Your task to perform on an android device: Open Yahoo.com Image 0: 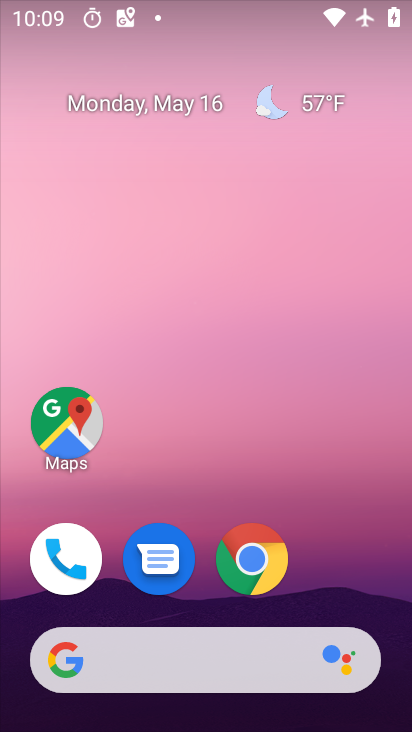
Step 0: click (242, 554)
Your task to perform on an android device: Open Yahoo.com Image 1: 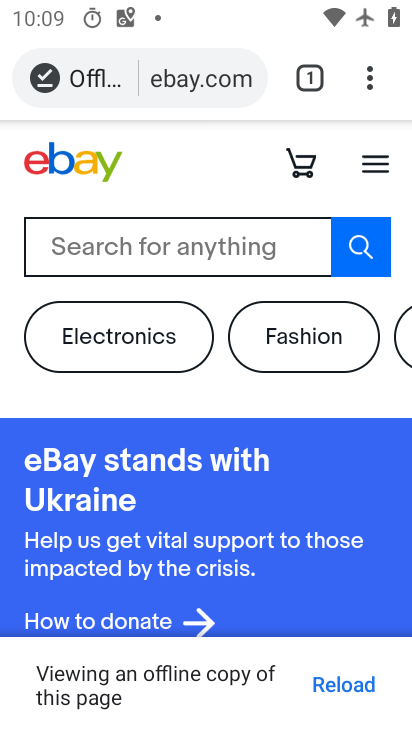
Step 1: click (193, 74)
Your task to perform on an android device: Open Yahoo.com Image 2: 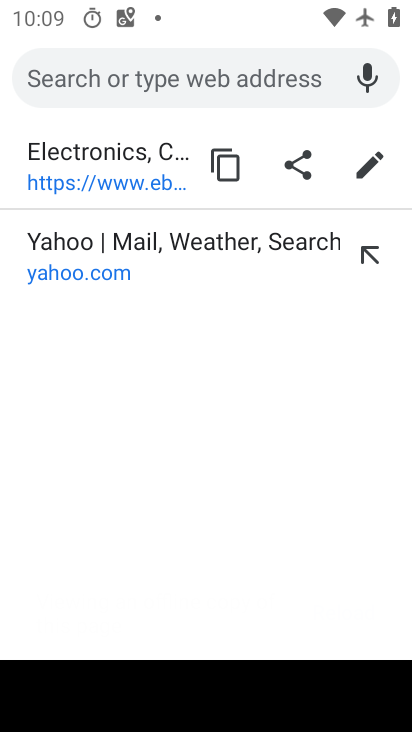
Step 2: click (121, 269)
Your task to perform on an android device: Open Yahoo.com Image 3: 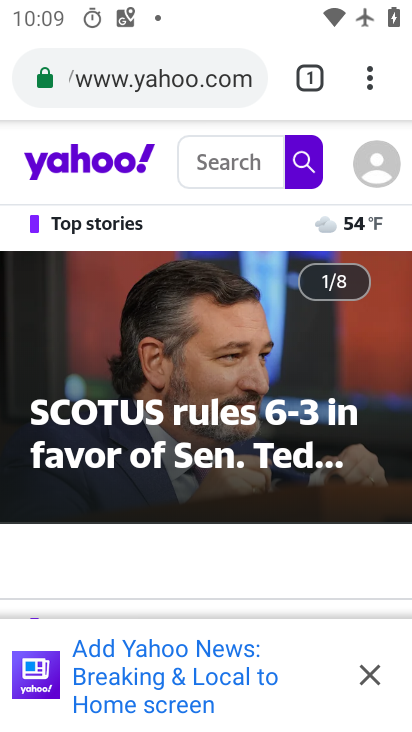
Step 3: task complete